Your task to perform on an android device: Do I have any events tomorrow? Image 0: 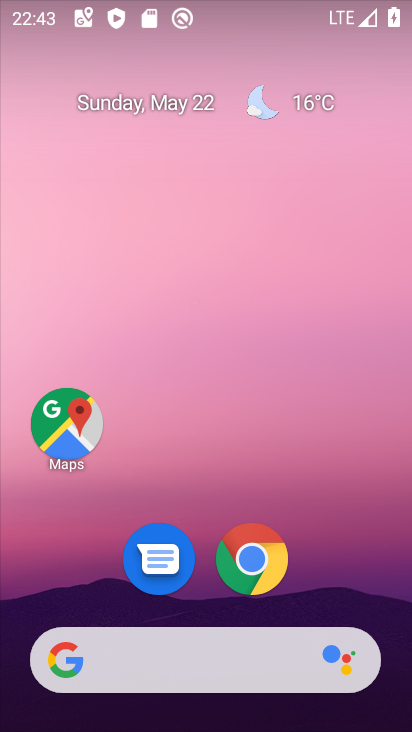
Step 0: press home button
Your task to perform on an android device: Do I have any events tomorrow? Image 1: 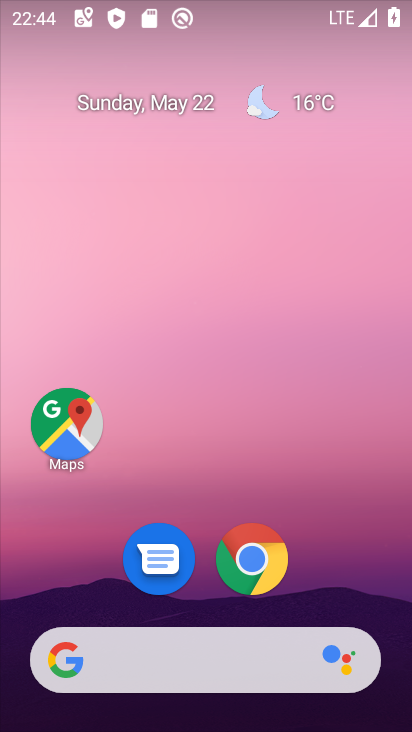
Step 1: drag from (228, 715) to (232, 116)
Your task to perform on an android device: Do I have any events tomorrow? Image 2: 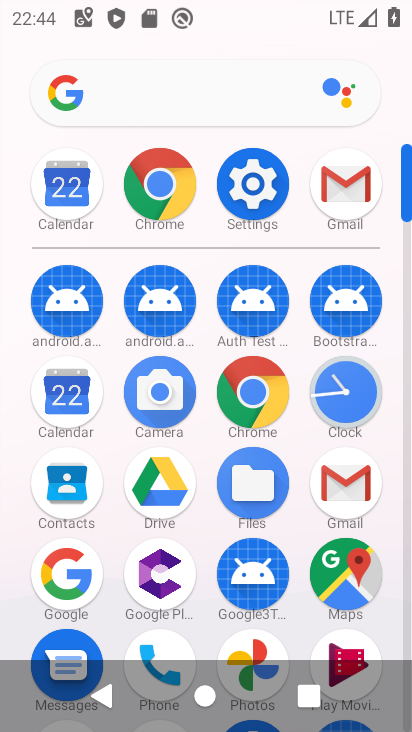
Step 2: click (55, 203)
Your task to perform on an android device: Do I have any events tomorrow? Image 3: 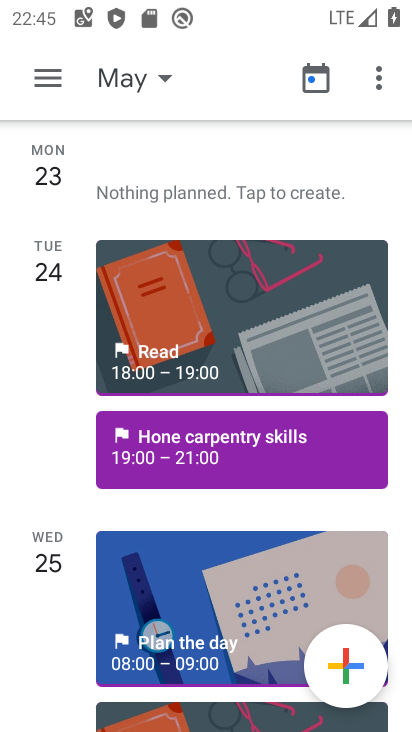
Step 3: task complete